Your task to perform on an android device: check android version Image 0: 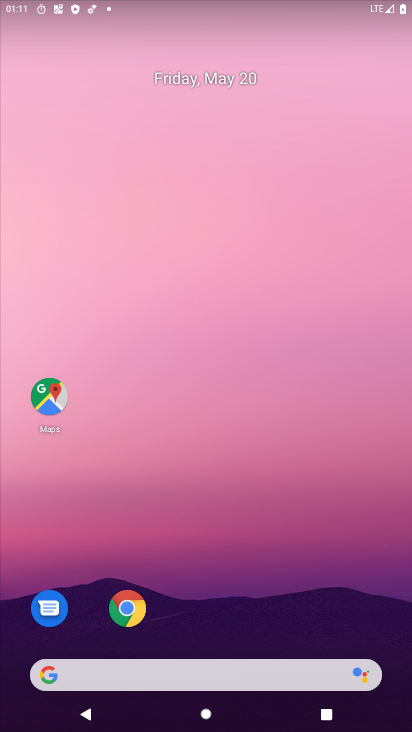
Step 0: drag from (342, 621) to (352, 89)
Your task to perform on an android device: check android version Image 1: 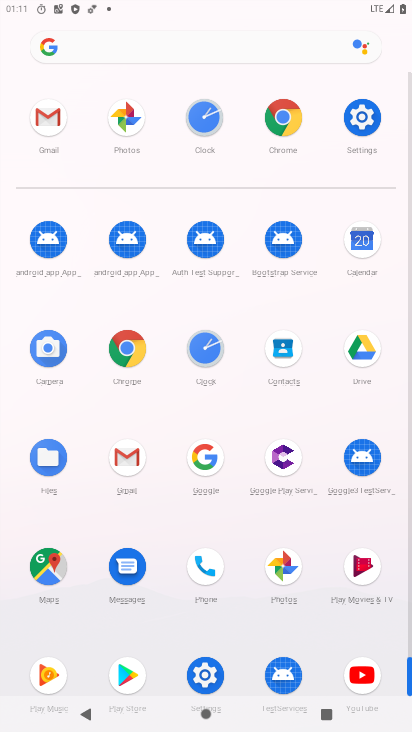
Step 1: click (213, 676)
Your task to perform on an android device: check android version Image 2: 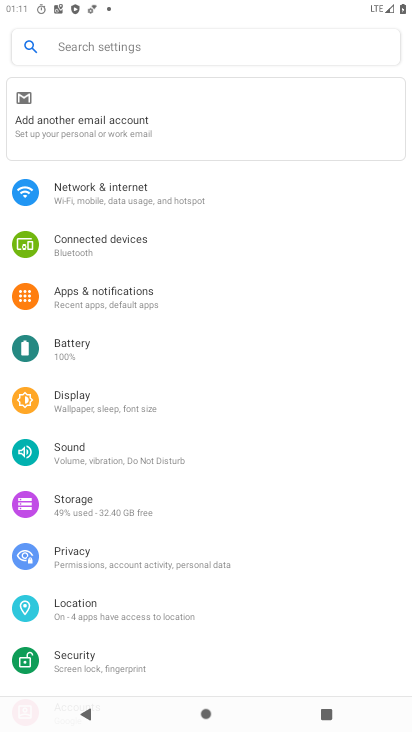
Step 2: drag from (211, 629) to (224, 268)
Your task to perform on an android device: check android version Image 3: 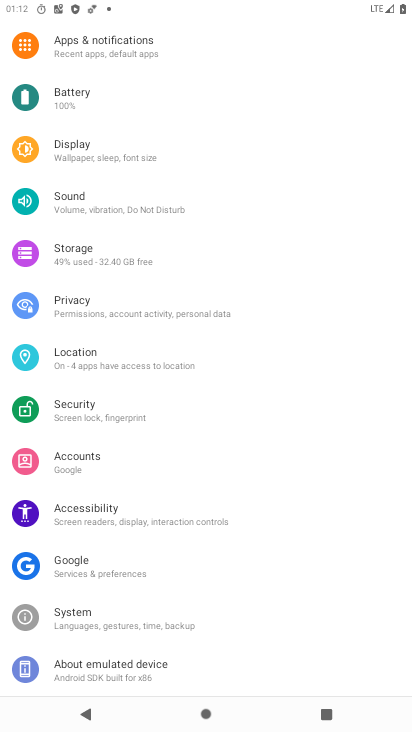
Step 3: click (111, 663)
Your task to perform on an android device: check android version Image 4: 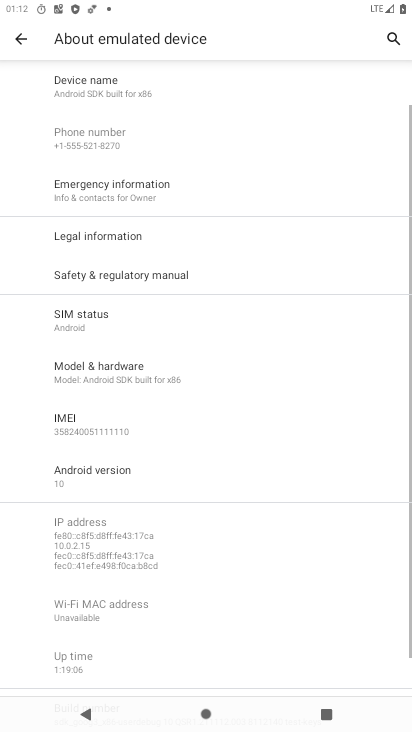
Step 4: task complete